Your task to perform on an android device: Is it going to rain tomorrow? Image 0: 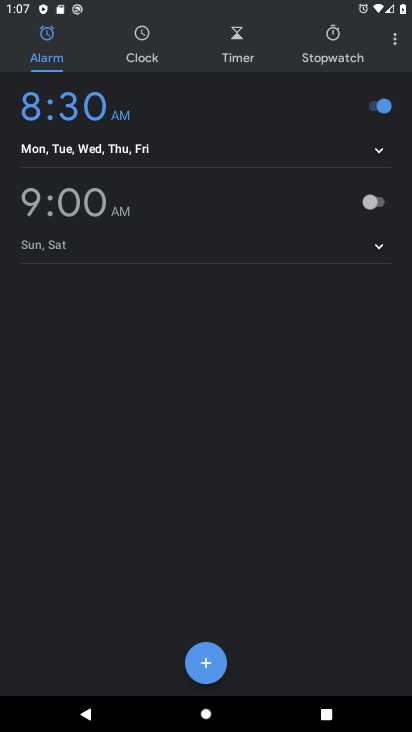
Step 0: press back button
Your task to perform on an android device: Is it going to rain tomorrow? Image 1: 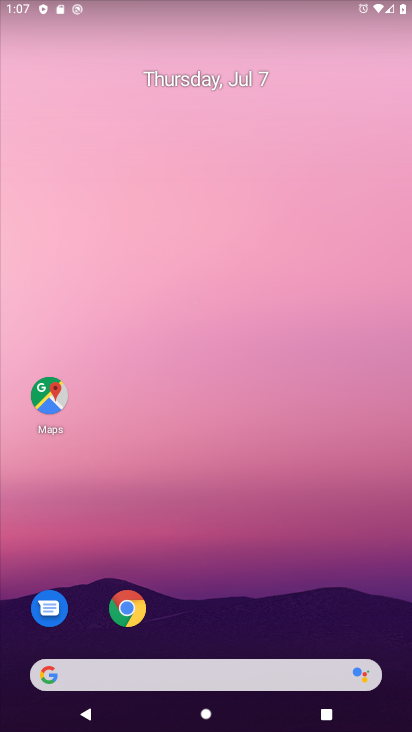
Step 1: click (208, 675)
Your task to perform on an android device: Is it going to rain tomorrow? Image 2: 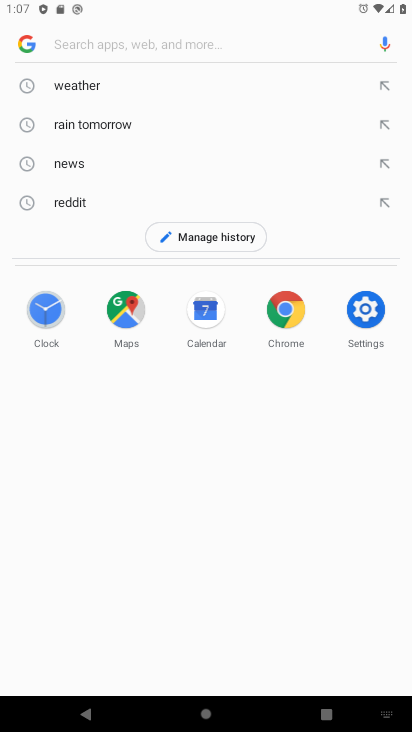
Step 2: click (99, 75)
Your task to perform on an android device: Is it going to rain tomorrow? Image 3: 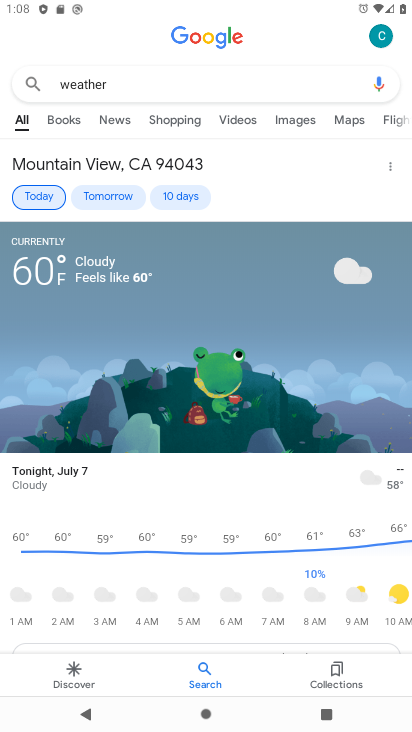
Step 3: click (104, 189)
Your task to perform on an android device: Is it going to rain tomorrow? Image 4: 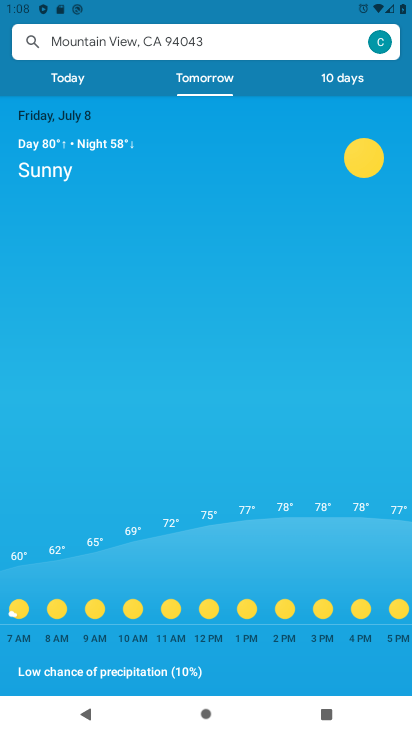
Step 4: task complete